Your task to perform on an android device: turn on javascript in the chrome app Image 0: 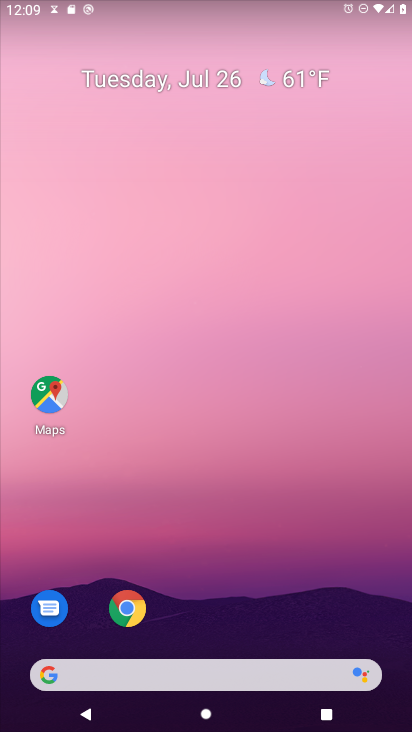
Step 0: click (127, 608)
Your task to perform on an android device: turn on javascript in the chrome app Image 1: 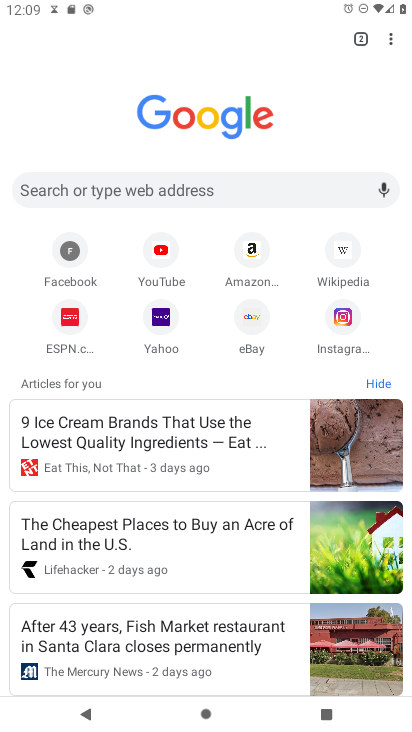
Step 1: click (389, 37)
Your task to perform on an android device: turn on javascript in the chrome app Image 2: 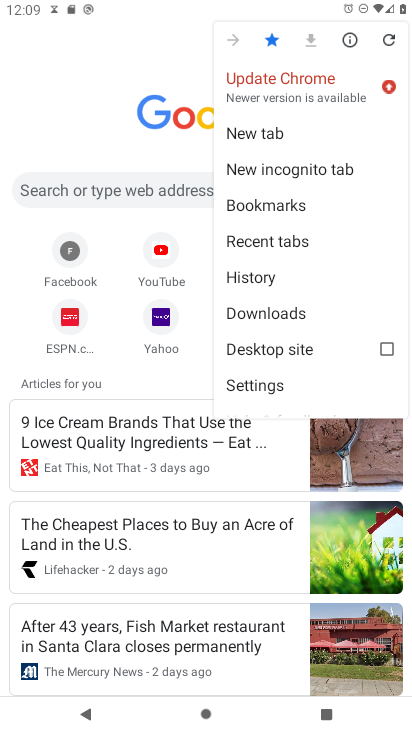
Step 2: click (258, 383)
Your task to perform on an android device: turn on javascript in the chrome app Image 3: 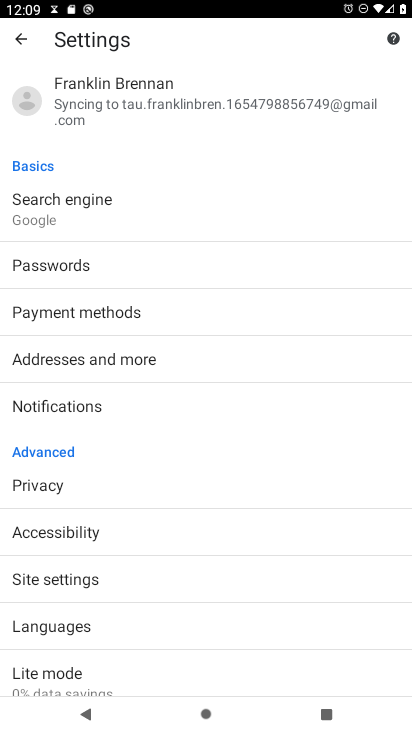
Step 3: click (59, 577)
Your task to perform on an android device: turn on javascript in the chrome app Image 4: 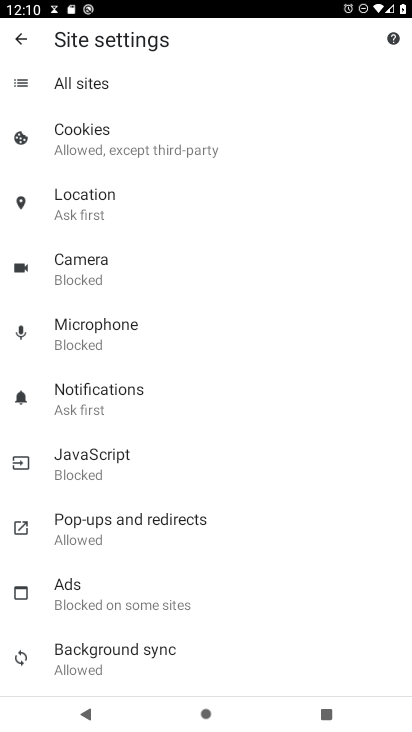
Step 4: click (110, 464)
Your task to perform on an android device: turn on javascript in the chrome app Image 5: 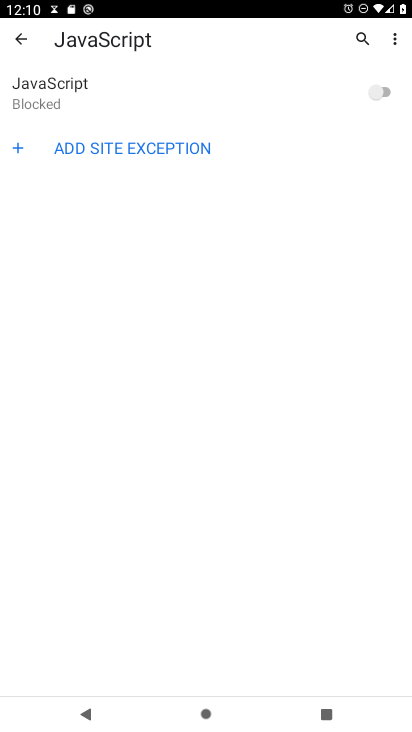
Step 5: click (381, 99)
Your task to perform on an android device: turn on javascript in the chrome app Image 6: 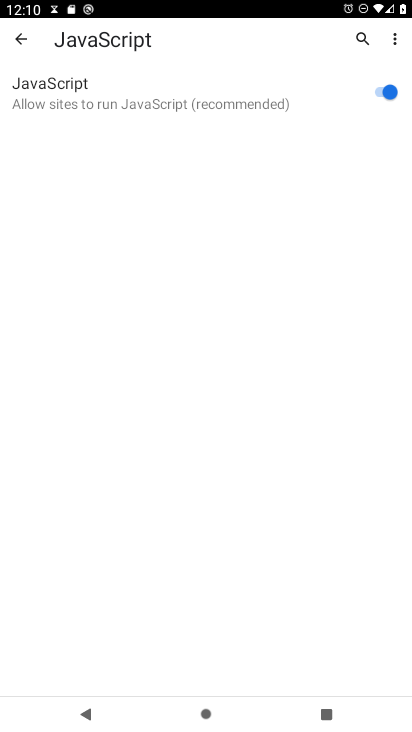
Step 6: task complete